Your task to perform on an android device: find which apps use the phone's location Image 0: 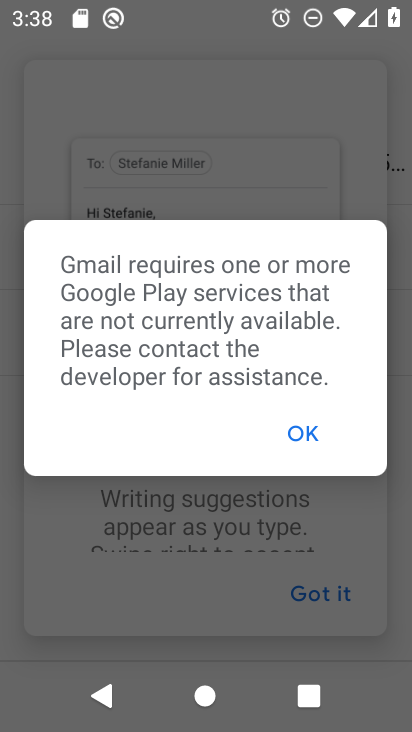
Step 0: press home button
Your task to perform on an android device: find which apps use the phone's location Image 1: 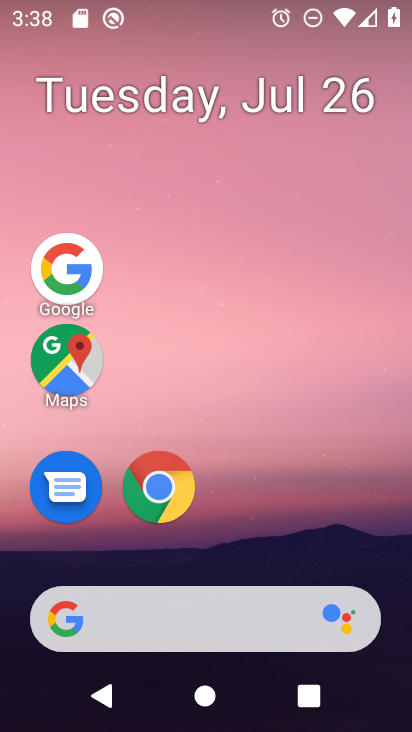
Step 1: drag from (255, 694) to (259, 259)
Your task to perform on an android device: find which apps use the phone's location Image 2: 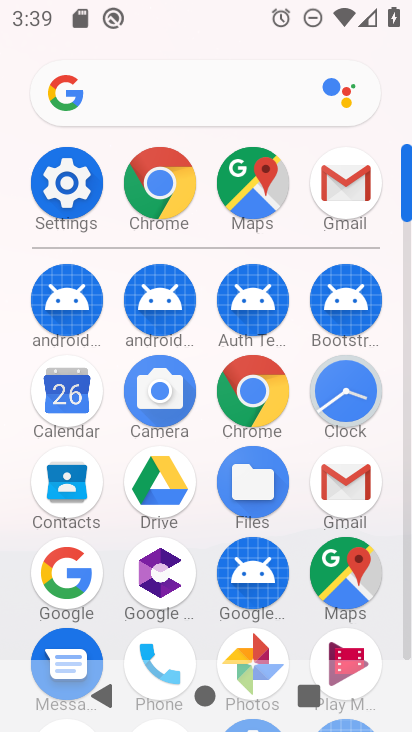
Step 2: drag from (227, 496) to (232, 284)
Your task to perform on an android device: find which apps use the phone's location Image 3: 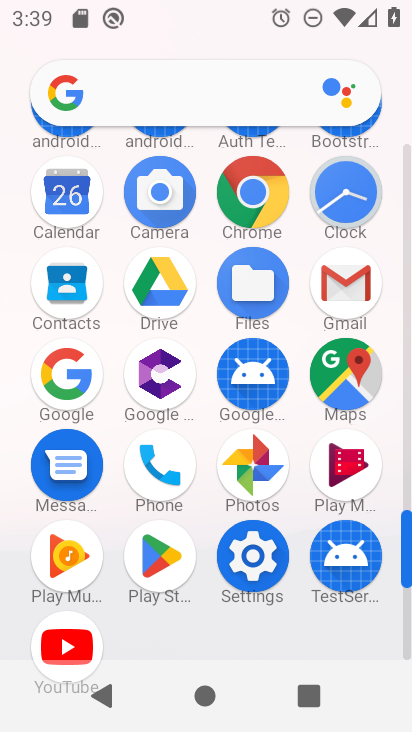
Step 3: click (245, 586)
Your task to perform on an android device: find which apps use the phone's location Image 4: 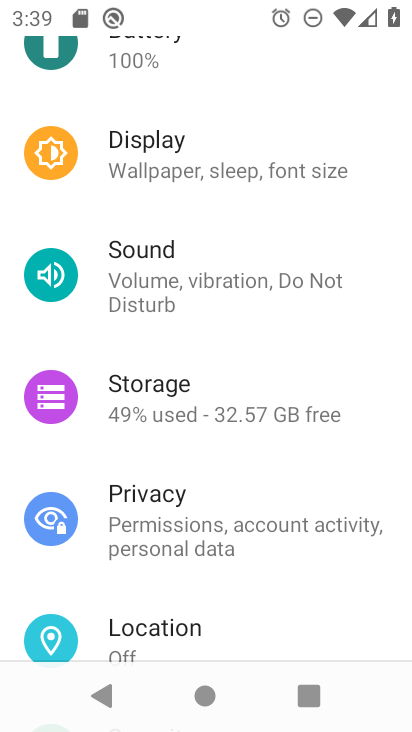
Step 4: click (225, 651)
Your task to perform on an android device: find which apps use the phone's location Image 5: 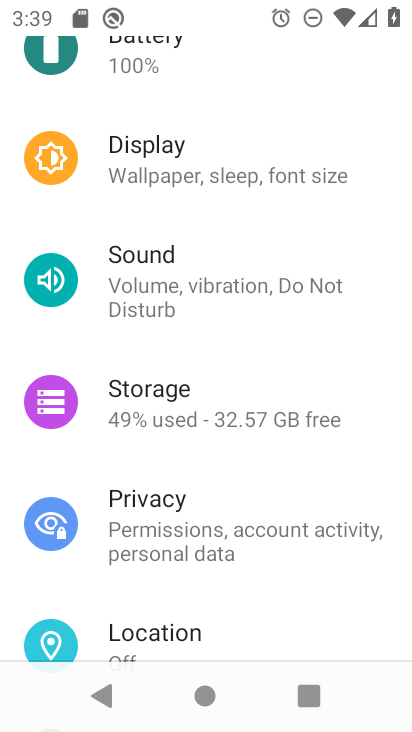
Step 5: drag from (223, 372) to (236, 684)
Your task to perform on an android device: find which apps use the phone's location Image 6: 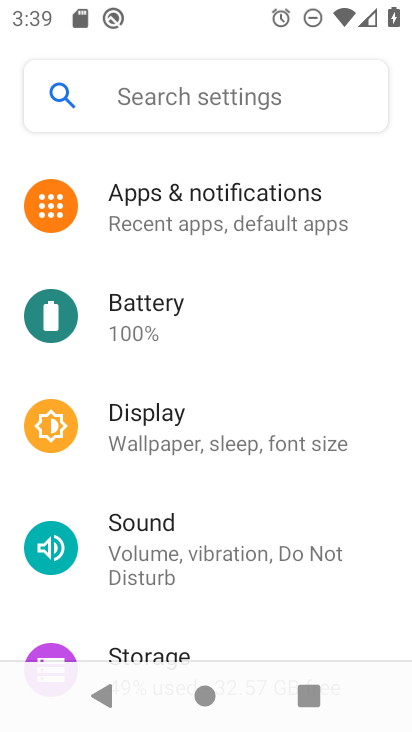
Step 6: drag from (186, 556) to (251, 171)
Your task to perform on an android device: find which apps use the phone's location Image 7: 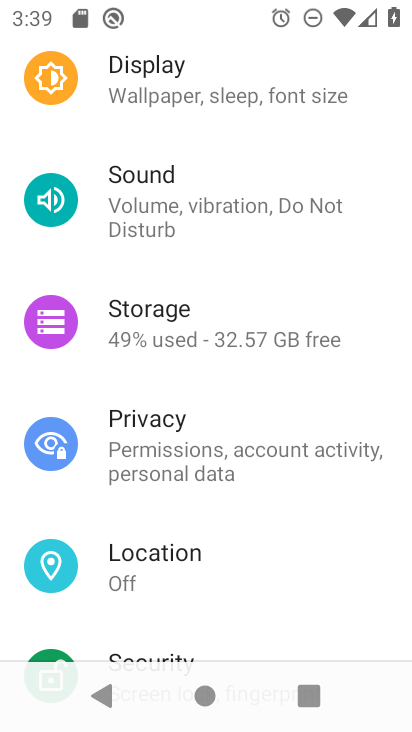
Step 7: click (187, 566)
Your task to perform on an android device: find which apps use the phone's location Image 8: 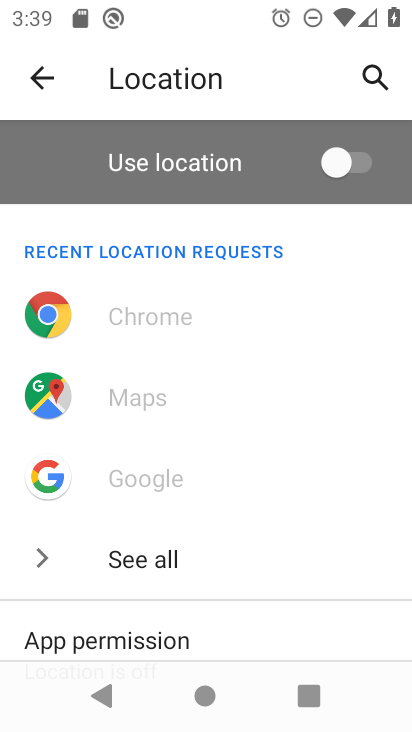
Step 8: drag from (216, 571) to (217, 286)
Your task to perform on an android device: find which apps use the phone's location Image 9: 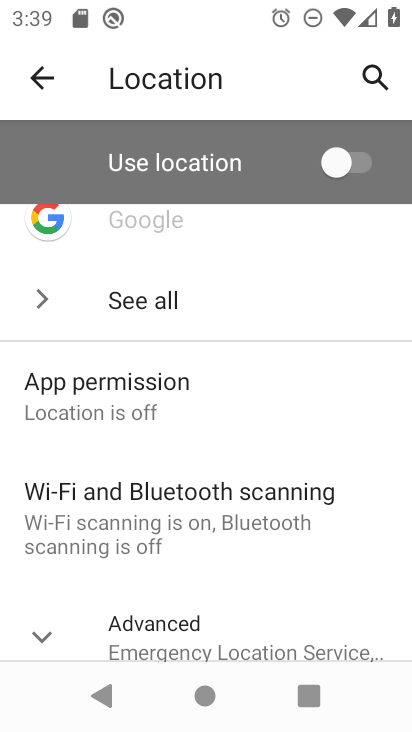
Step 9: drag from (183, 498) to (207, 275)
Your task to perform on an android device: find which apps use the phone's location Image 10: 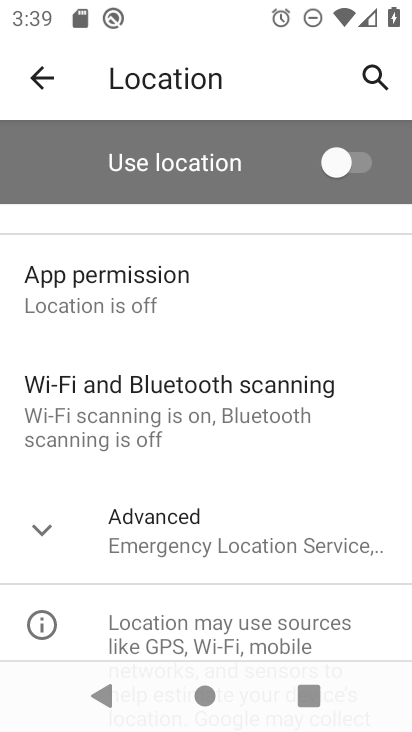
Step 10: drag from (202, 380) to (211, 572)
Your task to perform on an android device: find which apps use the phone's location Image 11: 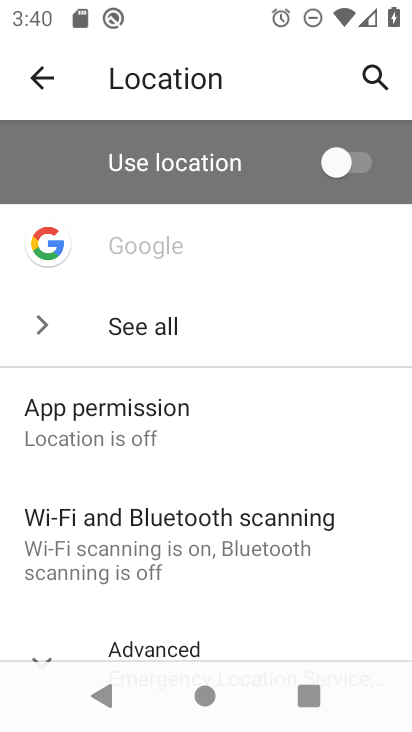
Step 11: click (161, 427)
Your task to perform on an android device: find which apps use the phone's location Image 12: 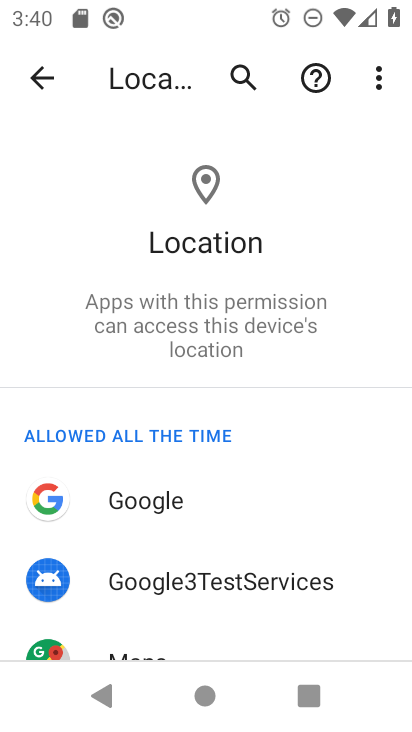
Step 12: task complete